Your task to perform on an android device: View the shopping cart on costco. Add "logitech g910" to the cart on costco Image 0: 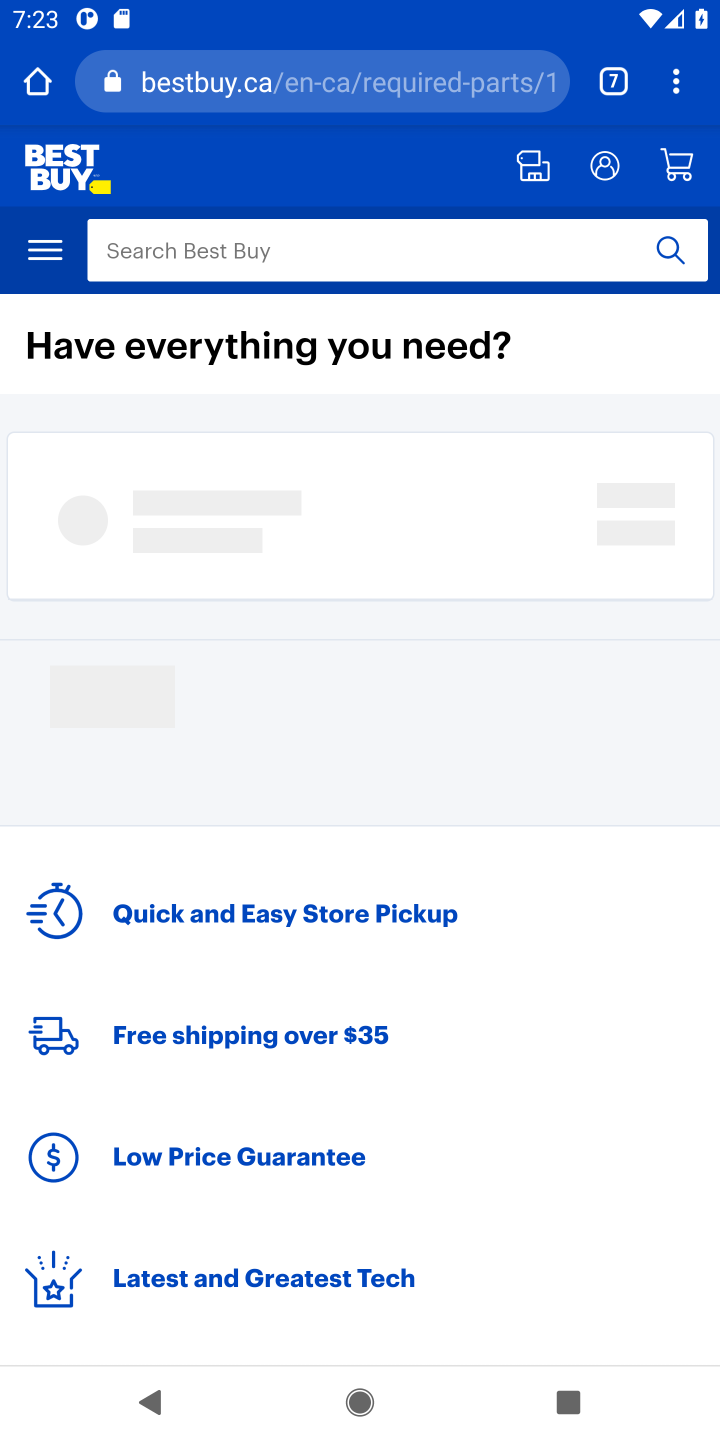
Step 0: press home button
Your task to perform on an android device: View the shopping cart on costco. Add "logitech g910" to the cart on costco Image 1: 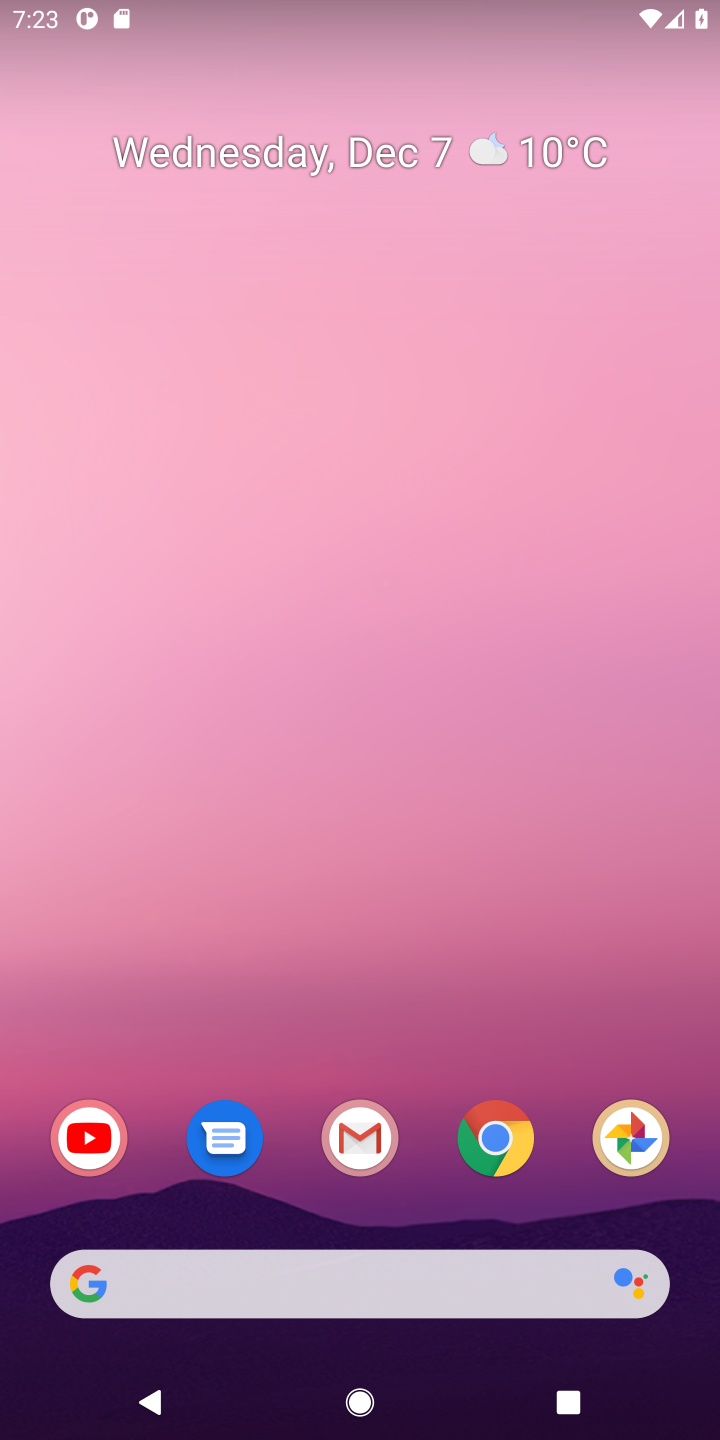
Step 1: click (139, 1282)
Your task to perform on an android device: View the shopping cart on costco. Add "logitech g910" to the cart on costco Image 2: 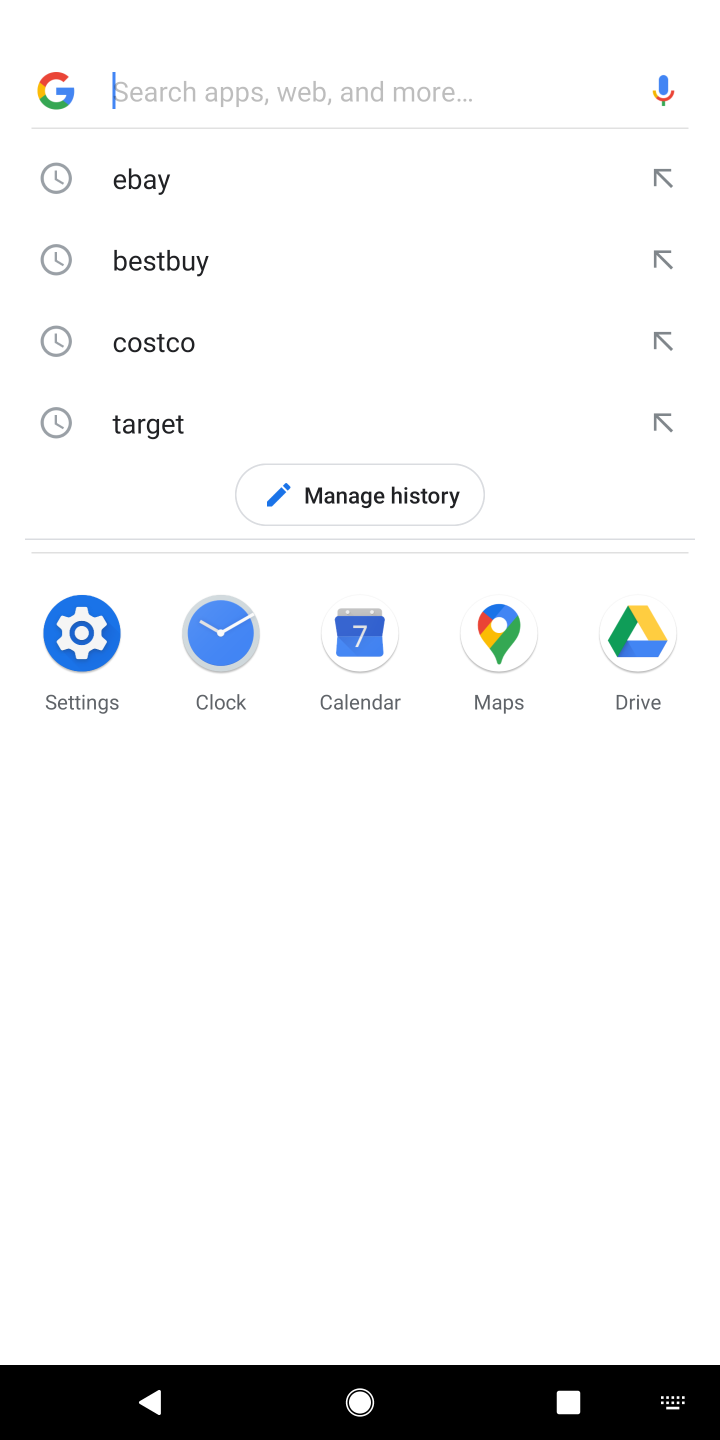
Step 2: type "costco"
Your task to perform on an android device: View the shopping cart on costco. Add "logitech g910" to the cart on costco Image 3: 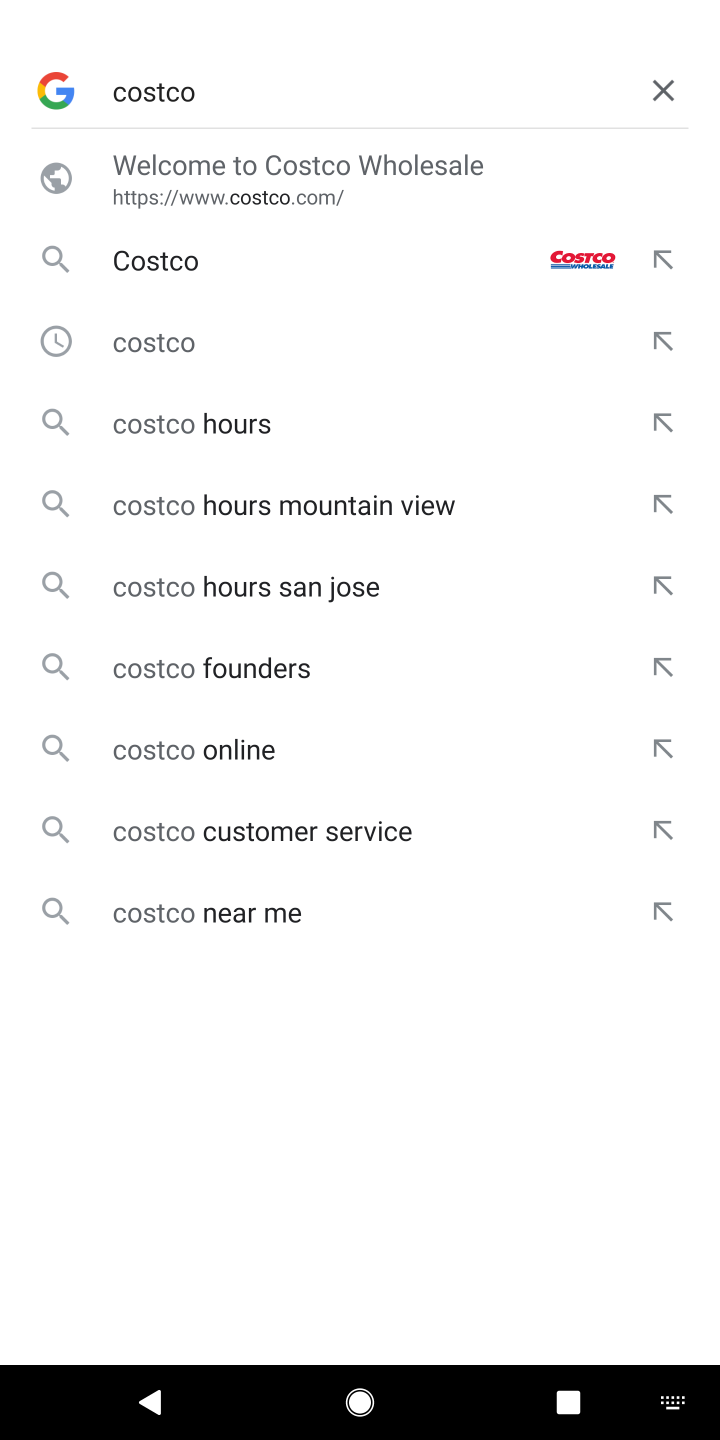
Step 3: press enter
Your task to perform on an android device: View the shopping cart on costco. Add "logitech g910" to the cart on costco Image 4: 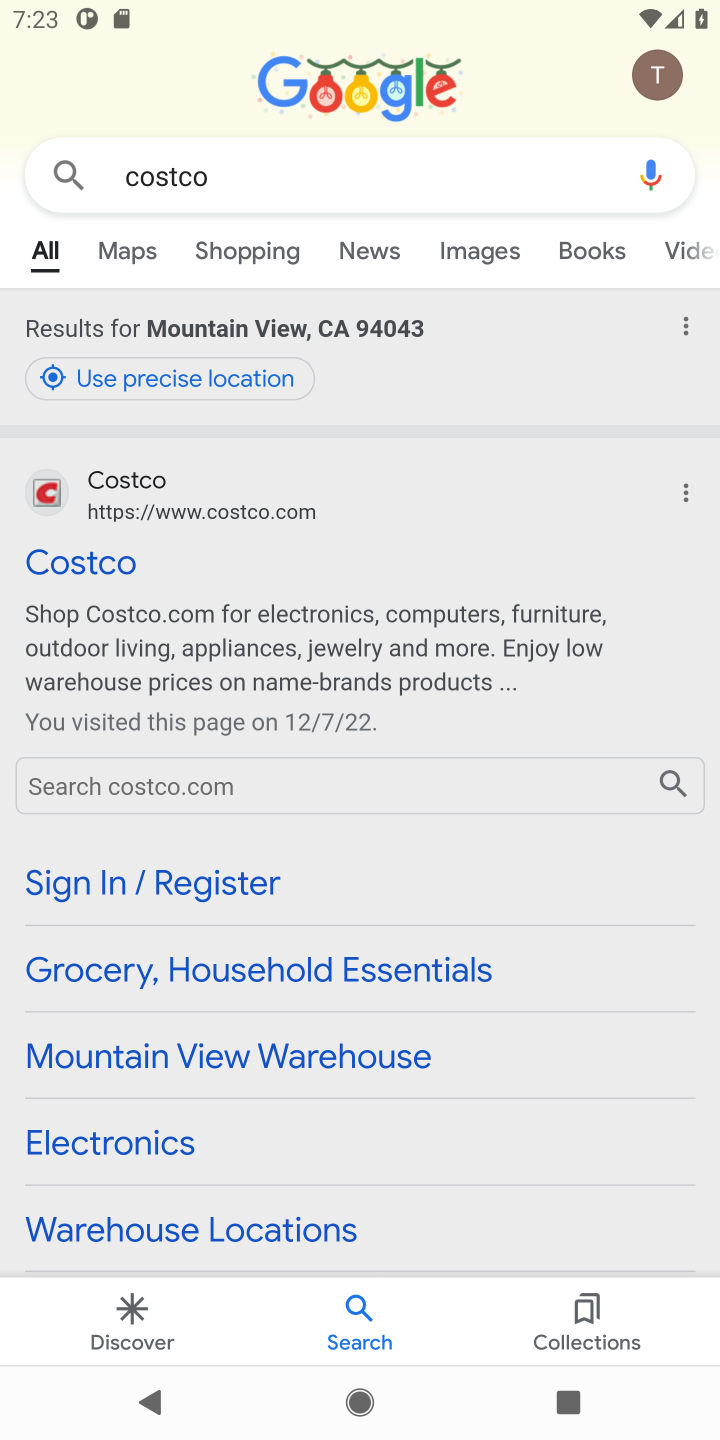
Step 4: click (96, 557)
Your task to perform on an android device: View the shopping cart on costco. Add "logitech g910" to the cart on costco Image 5: 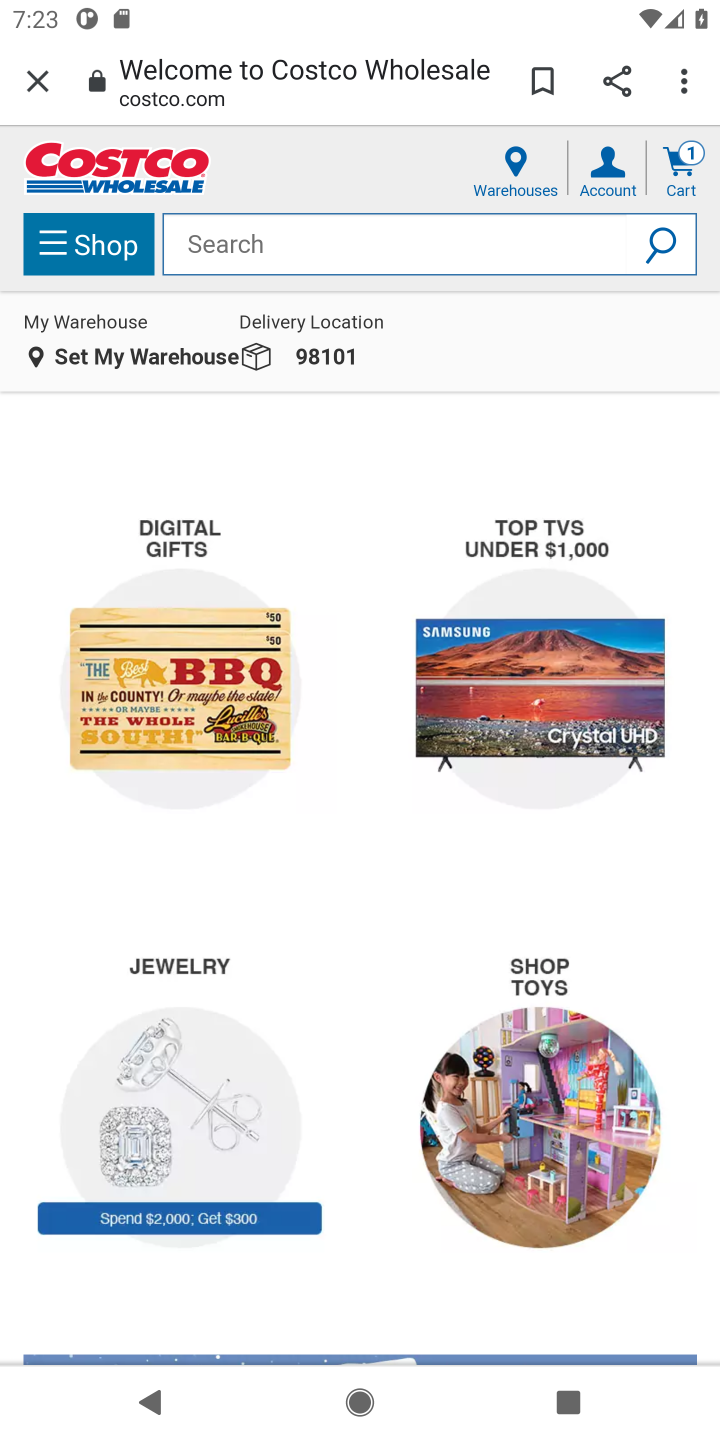
Step 5: click (680, 160)
Your task to perform on an android device: View the shopping cart on costco. Add "logitech g910" to the cart on costco Image 6: 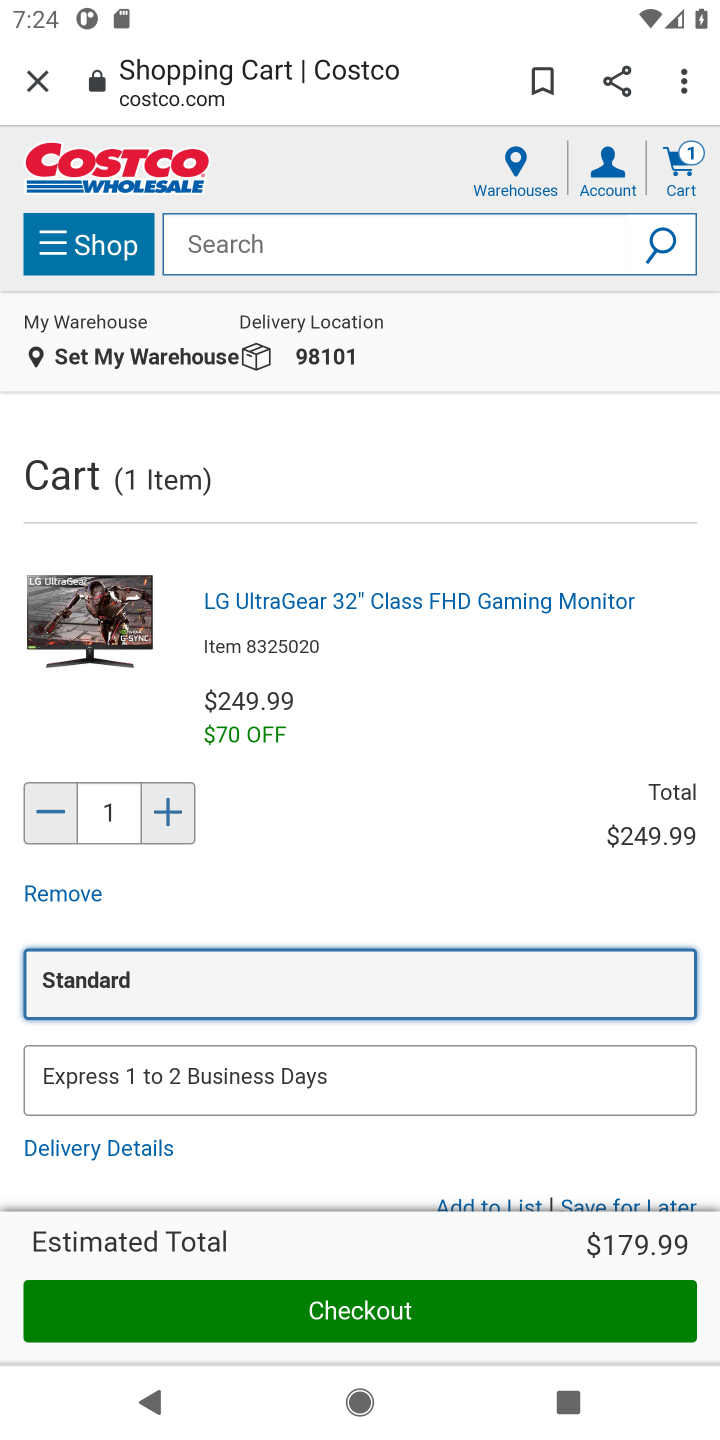
Step 6: click (367, 237)
Your task to perform on an android device: View the shopping cart on costco. Add "logitech g910" to the cart on costco Image 7: 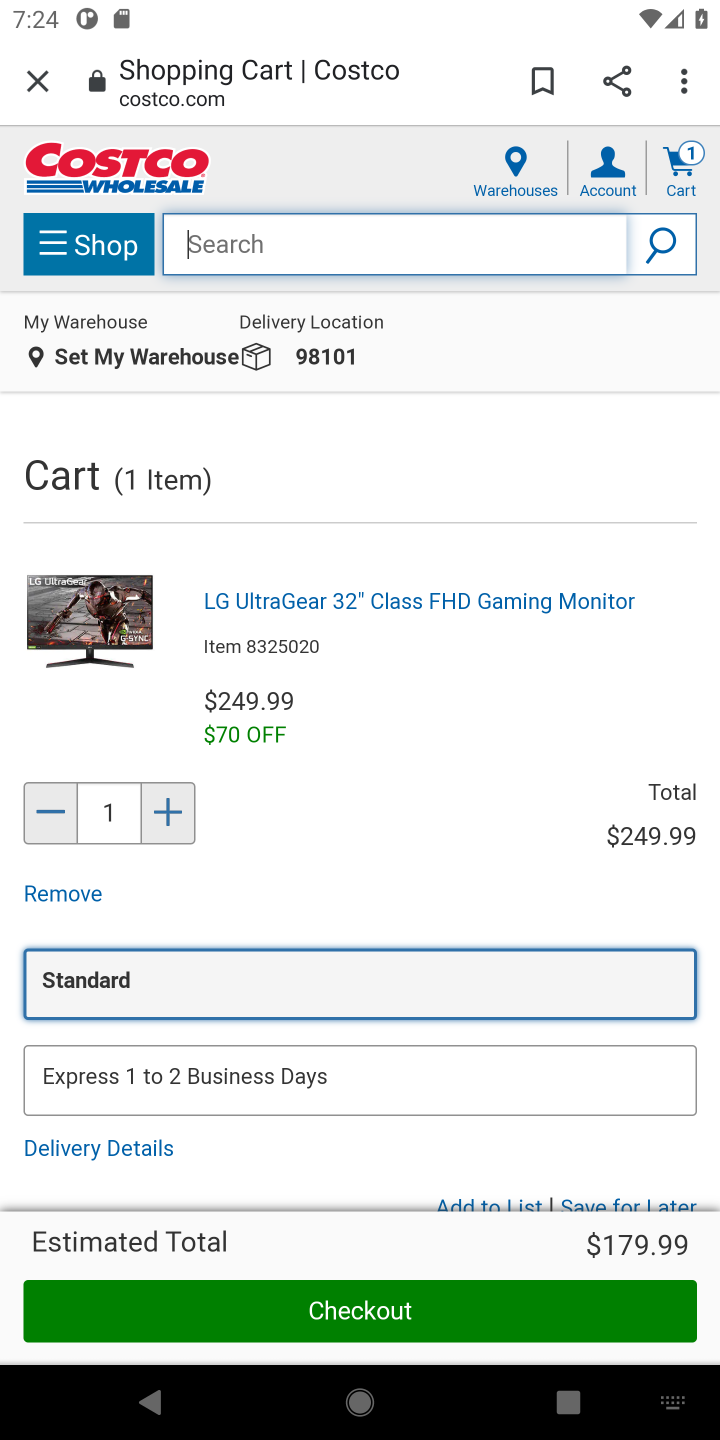
Step 7: type "logitech g910"
Your task to perform on an android device: View the shopping cart on costco. Add "logitech g910" to the cart on costco Image 8: 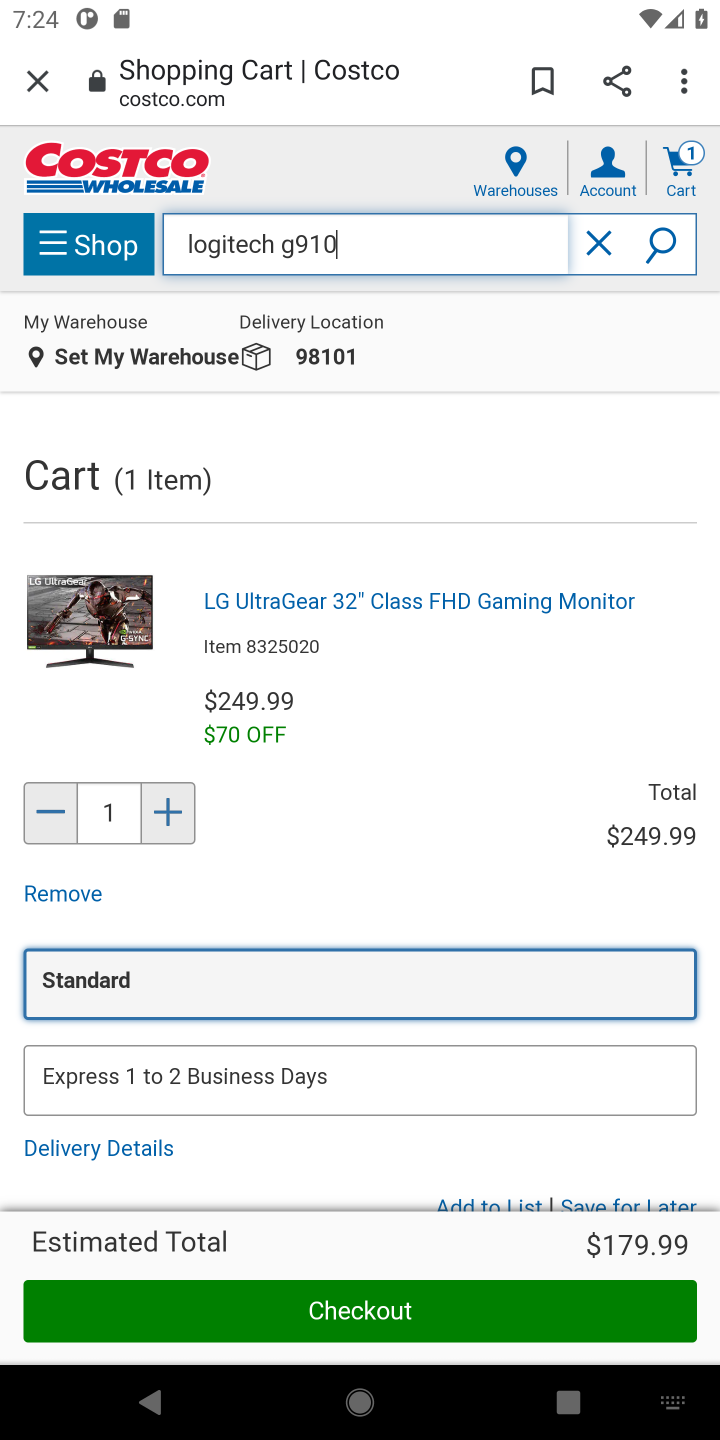
Step 8: press enter
Your task to perform on an android device: View the shopping cart on costco. Add "logitech g910" to the cart on costco Image 9: 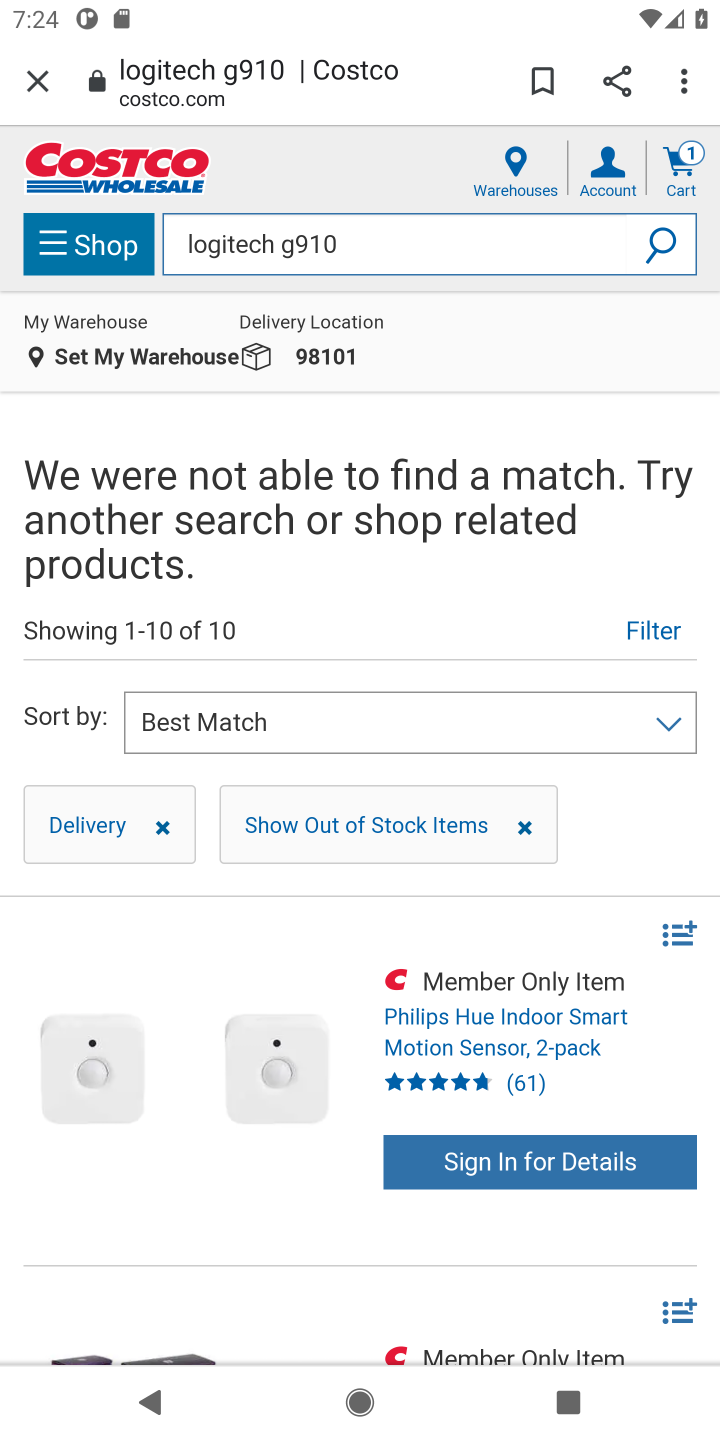
Step 9: task complete